Your task to perform on an android device: uninstall "NewsBreak: Local News & Alerts" Image 0: 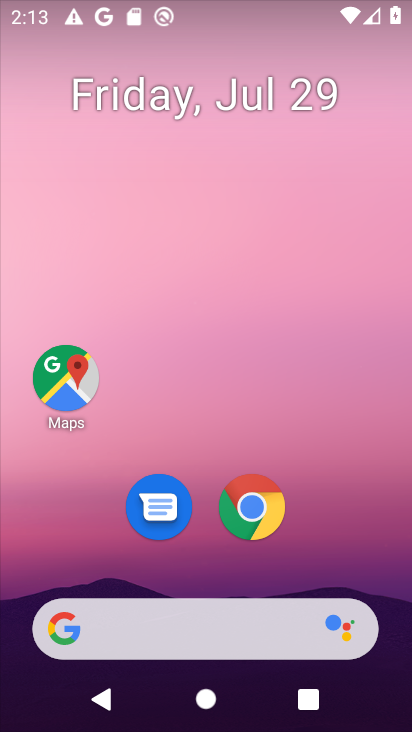
Step 0: click (190, 638)
Your task to perform on an android device: uninstall "NewsBreak: Local News & Alerts" Image 1: 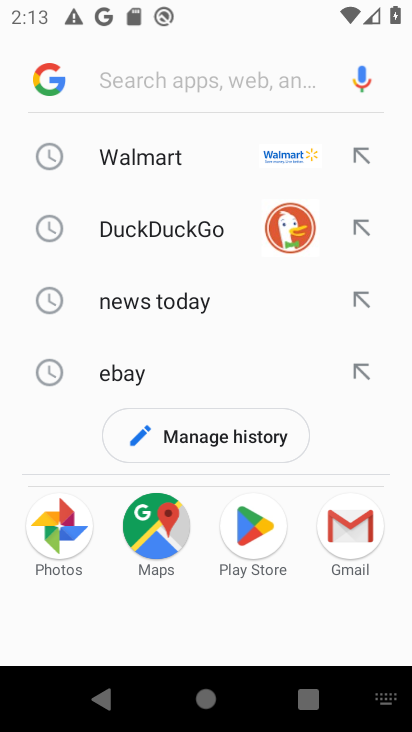
Step 1: type "newsbreak"
Your task to perform on an android device: uninstall "NewsBreak: Local News & Alerts" Image 2: 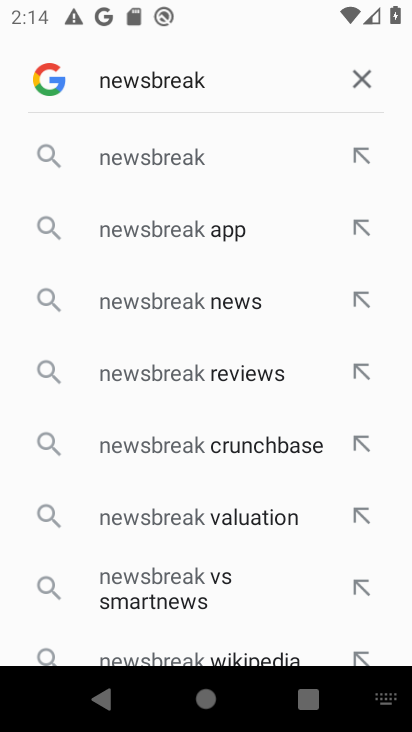
Step 2: click (208, 163)
Your task to perform on an android device: uninstall "NewsBreak: Local News & Alerts" Image 3: 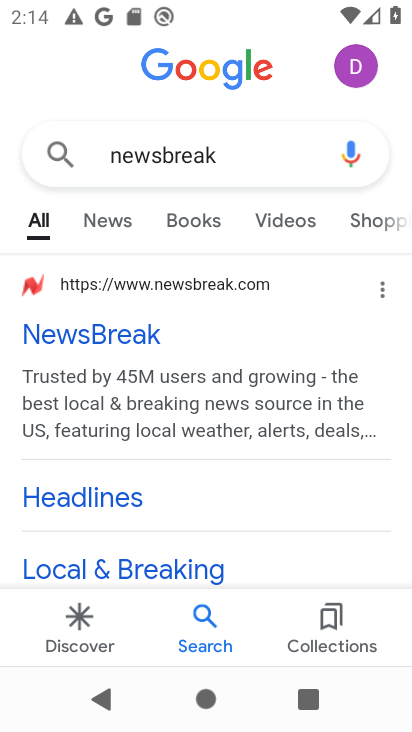
Step 3: task complete